Your task to perform on an android device: Go to accessibility settings Image 0: 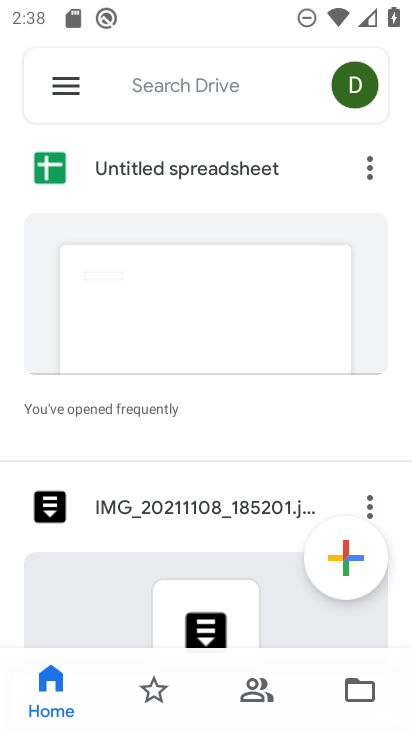
Step 0: press home button
Your task to perform on an android device: Go to accessibility settings Image 1: 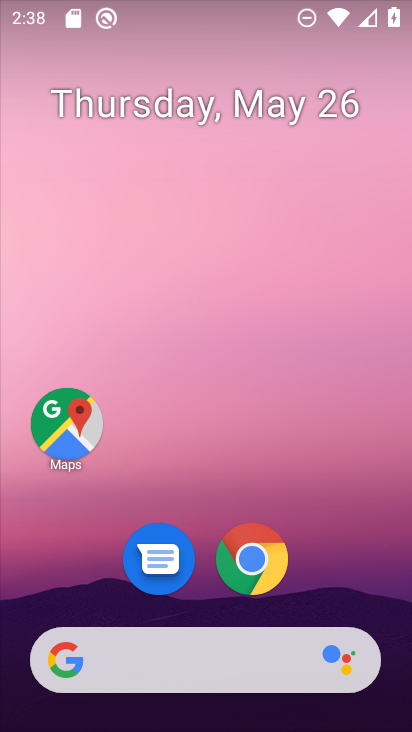
Step 1: drag from (225, 669) to (339, 556)
Your task to perform on an android device: Go to accessibility settings Image 2: 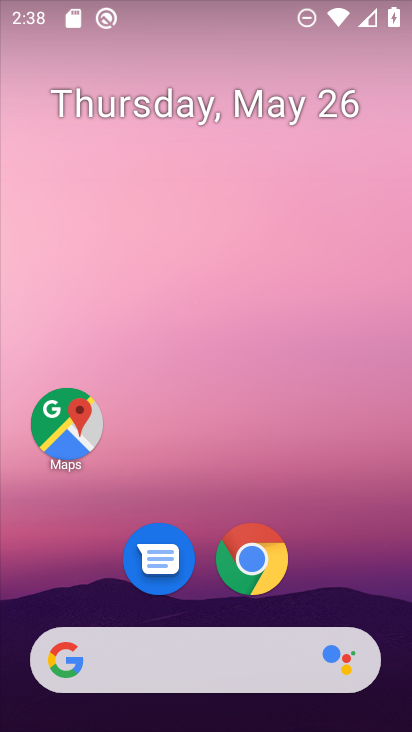
Step 2: drag from (234, 654) to (381, 211)
Your task to perform on an android device: Go to accessibility settings Image 3: 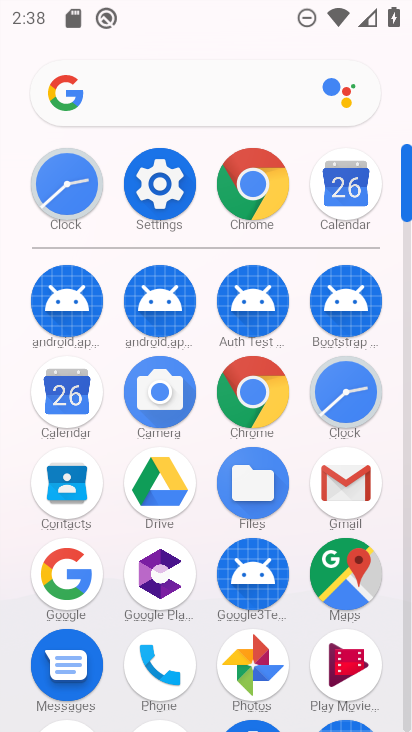
Step 3: click (177, 191)
Your task to perform on an android device: Go to accessibility settings Image 4: 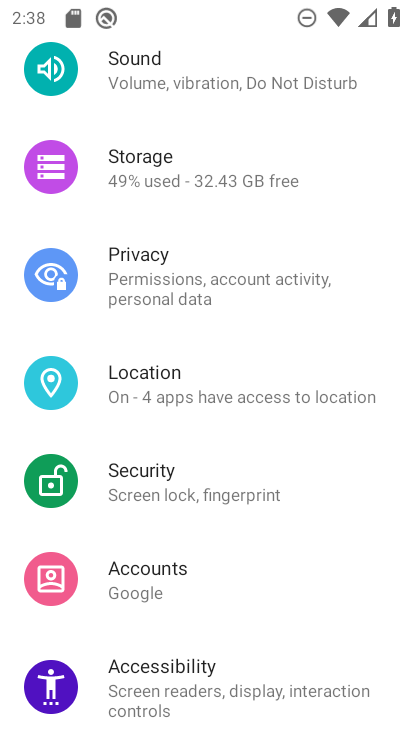
Step 4: click (188, 687)
Your task to perform on an android device: Go to accessibility settings Image 5: 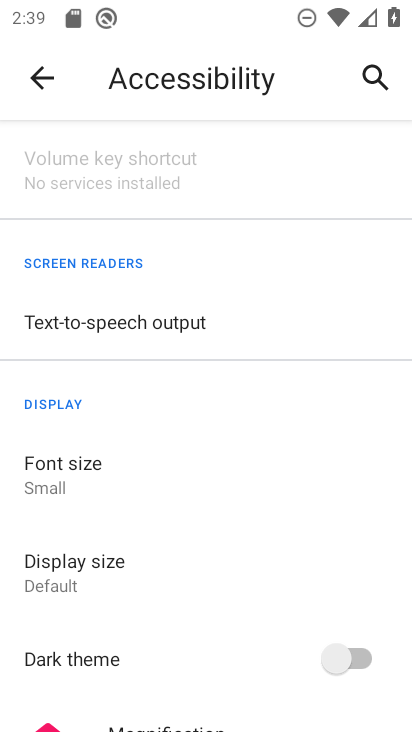
Step 5: task complete